Your task to perform on an android device: Search for a new bike on Walmart. Image 0: 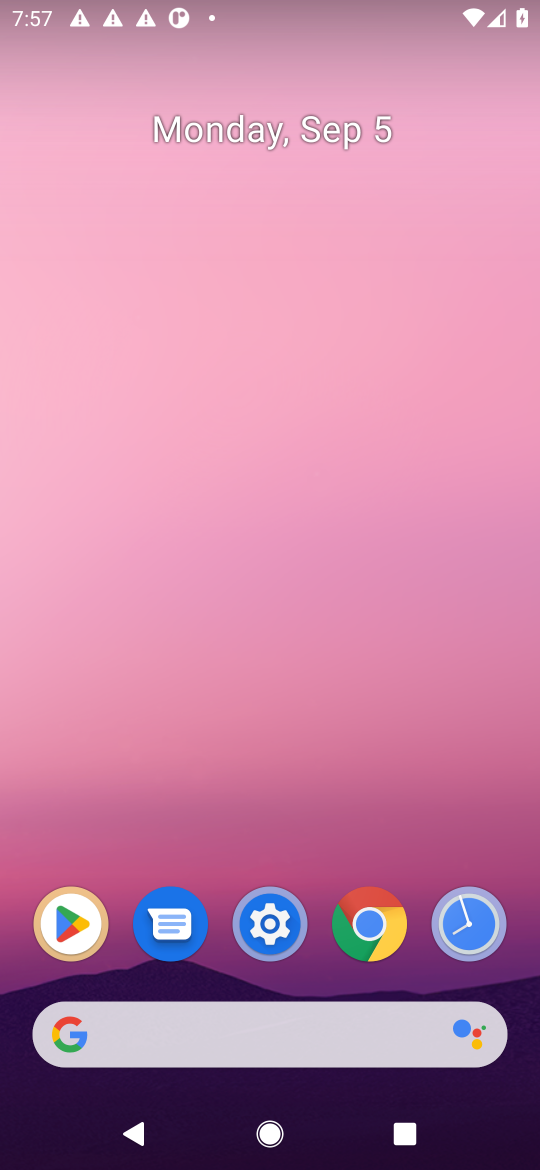
Step 0: click (360, 1021)
Your task to perform on an android device: Search for a new bike on Walmart. Image 1: 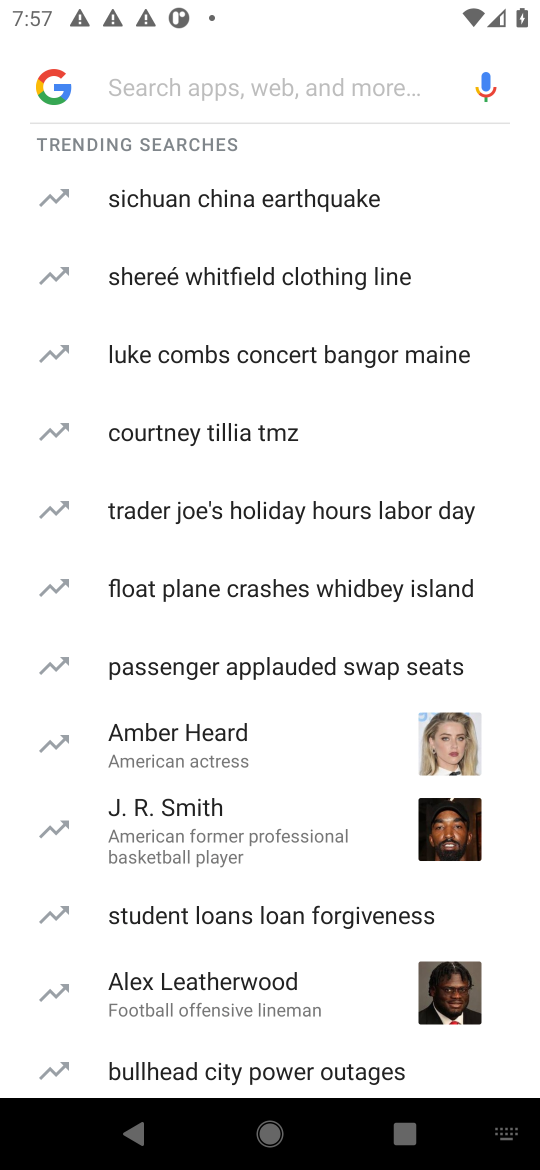
Step 1: type "walmart"
Your task to perform on an android device: Search for a new bike on Walmart. Image 2: 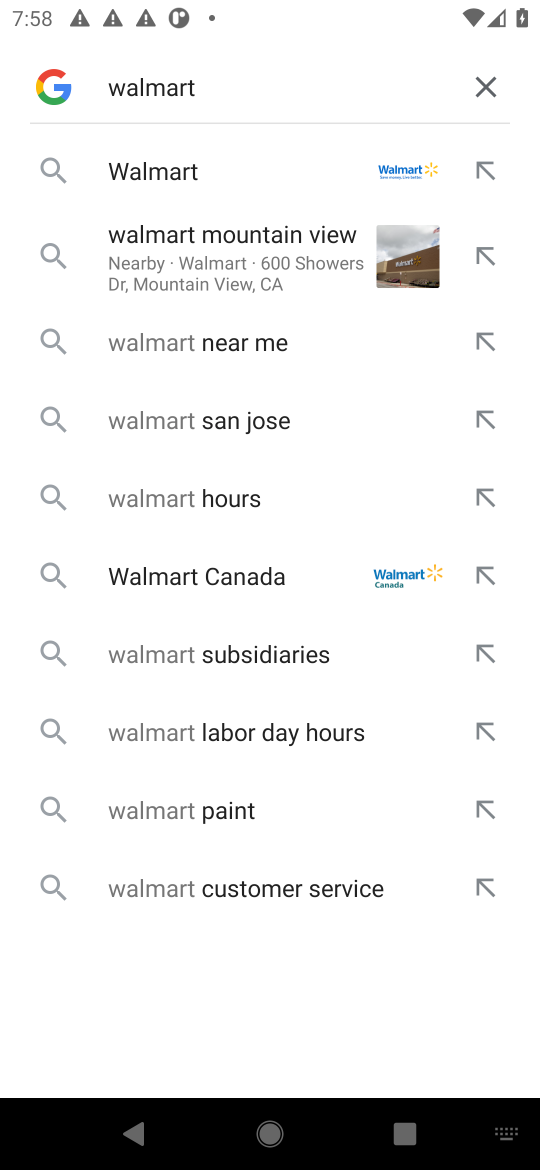
Step 2: press enter
Your task to perform on an android device: Search for a new bike on Walmart. Image 3: 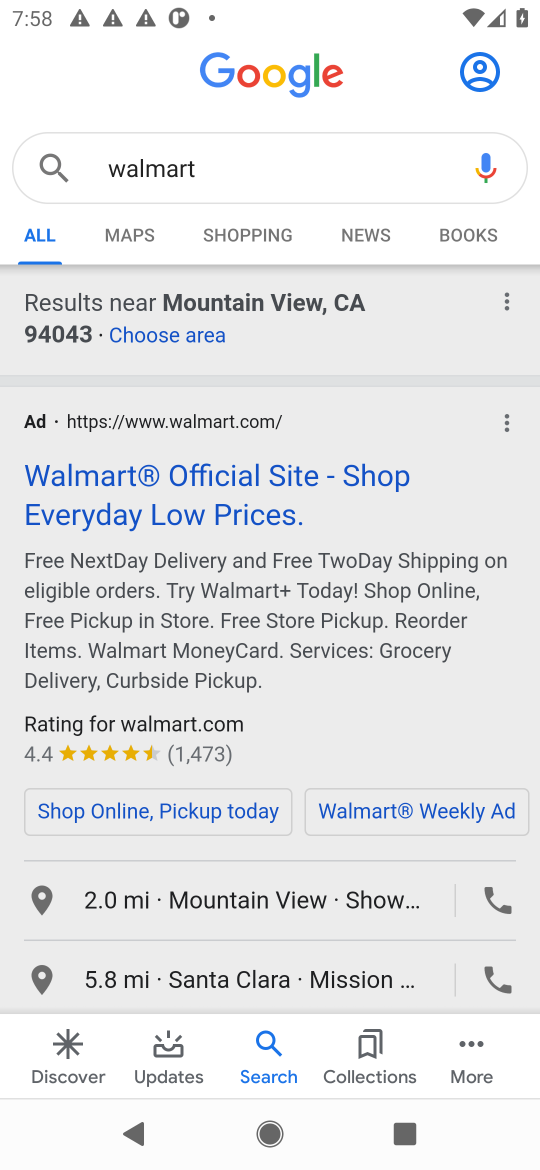
Step 3: click (191, 486)
Your task to perform on an android device: Search for a new bike on Walmart. Image 4: 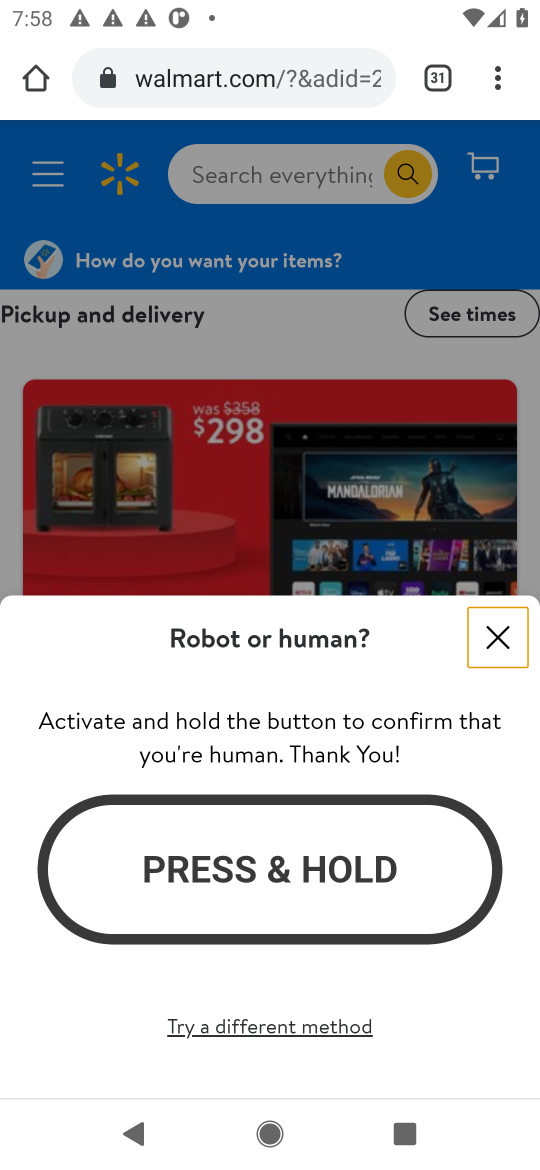
Step 4: click (496, 637)
Your task to perform on an android device: Search for a new bike on Walmart. Image 5: 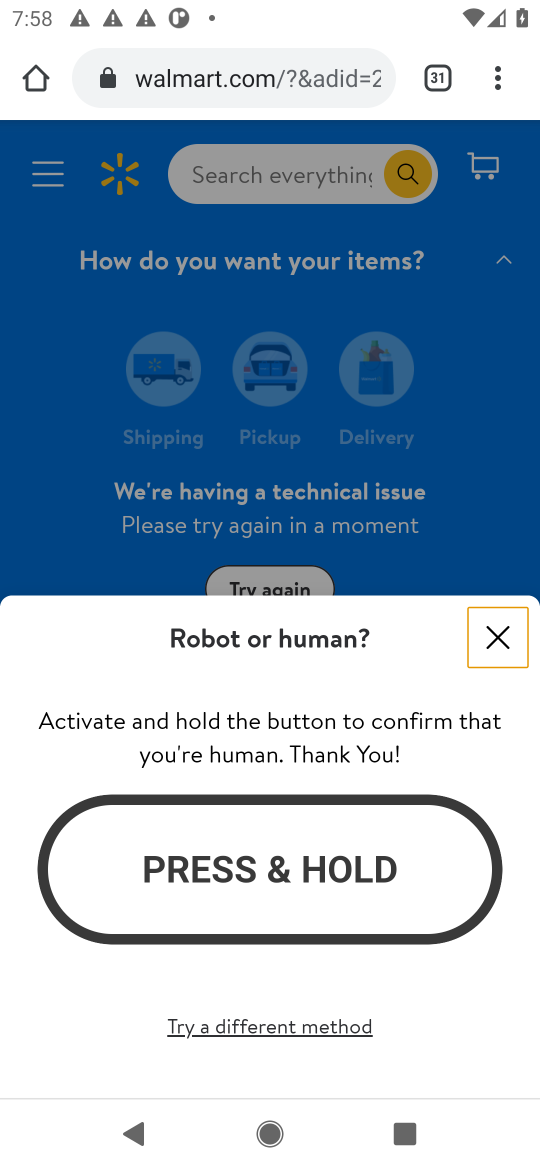
Step 5: click (501, 629)
Your task to perform on an android device: Search for a new bike on Walmart. Image 6: 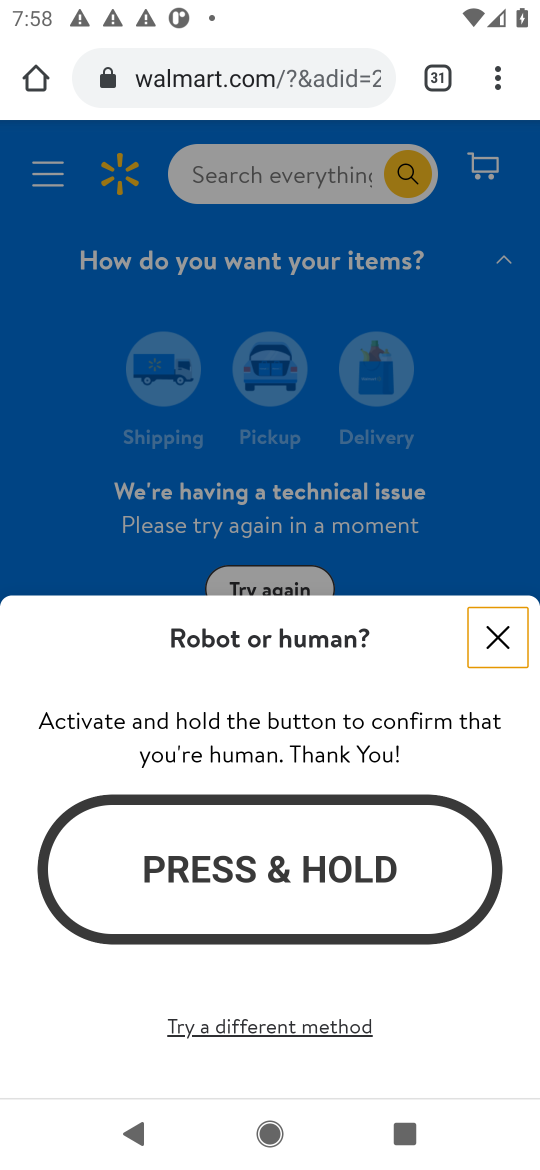
Step 6: click (504, 643)
Your task to perform on an android device: Search for a new bike on Walmart. Image 7: 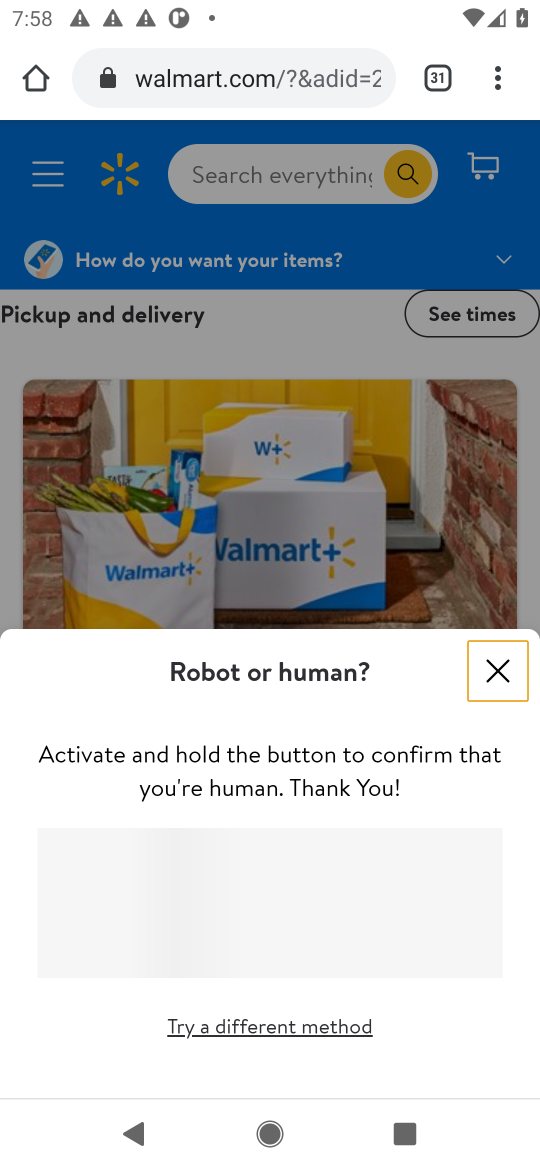
Step 7: click (248, 158)
Your task to perform on an android device: Search for a new bike on Walmart. Image 8: 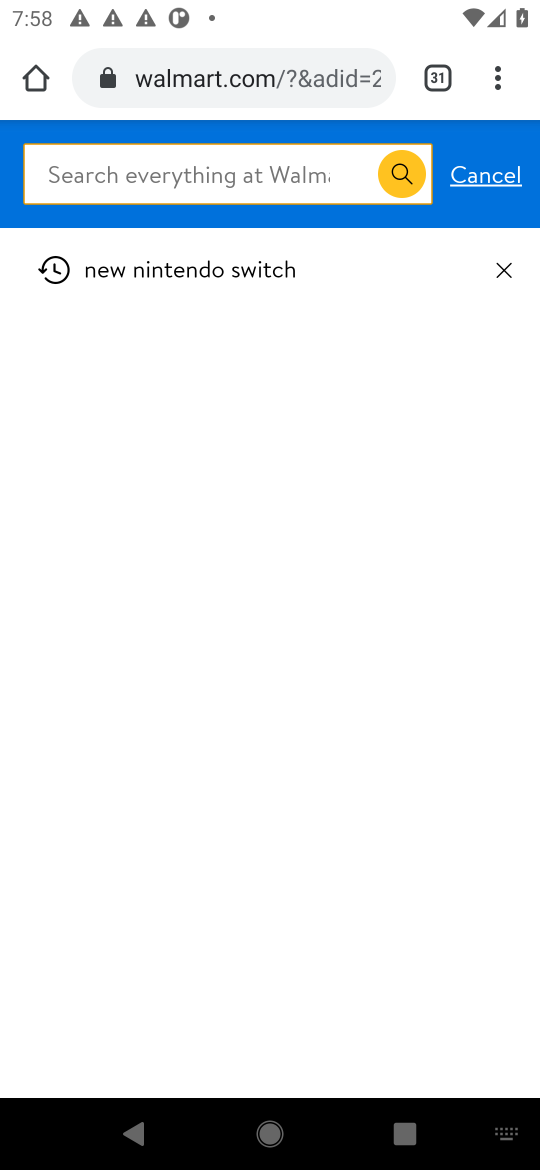
Step 8: click (187, 167)
Your task to perform on an android device: Search for a new bike on Walmart. Image 9: 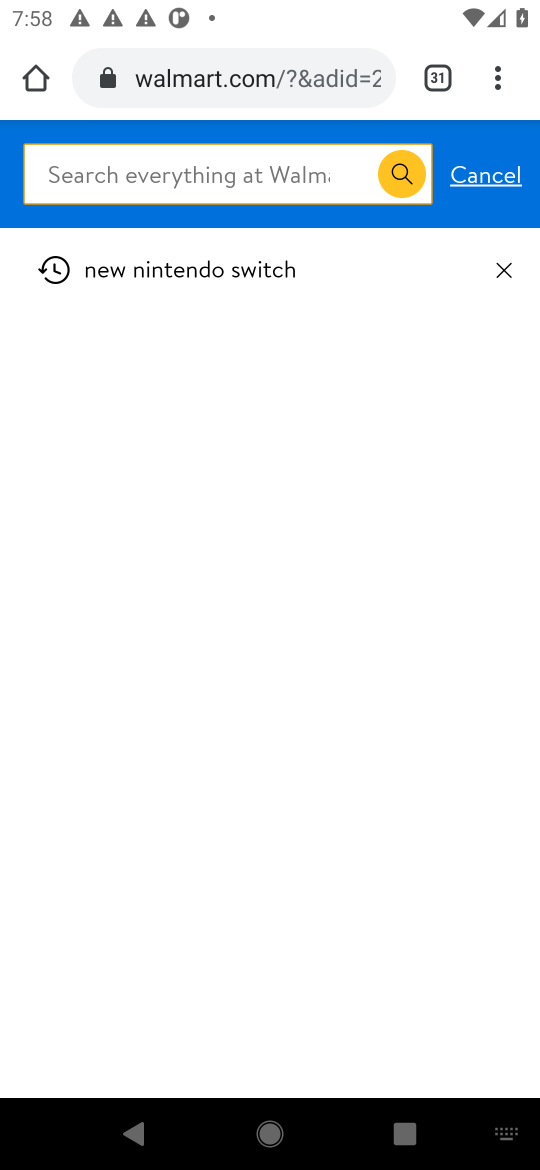
Step 9: type "walmart"
Your task to perform on an android device: Search for a new bike on Walmart. Image 10: 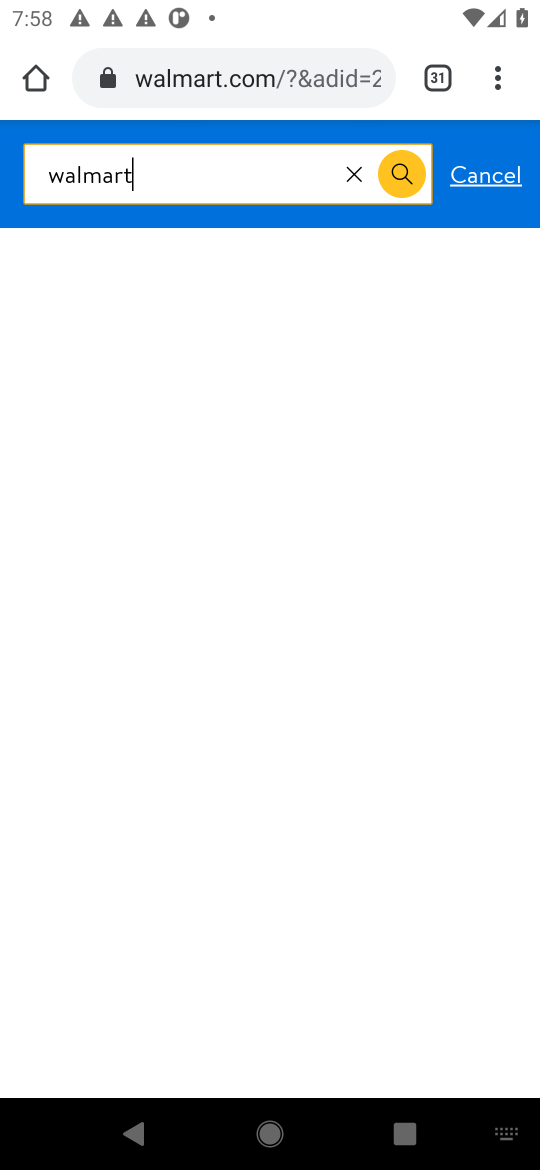
Step 10: press enter
Your task to perform on an android device: Search for a new bike on Walmart. Image 11: 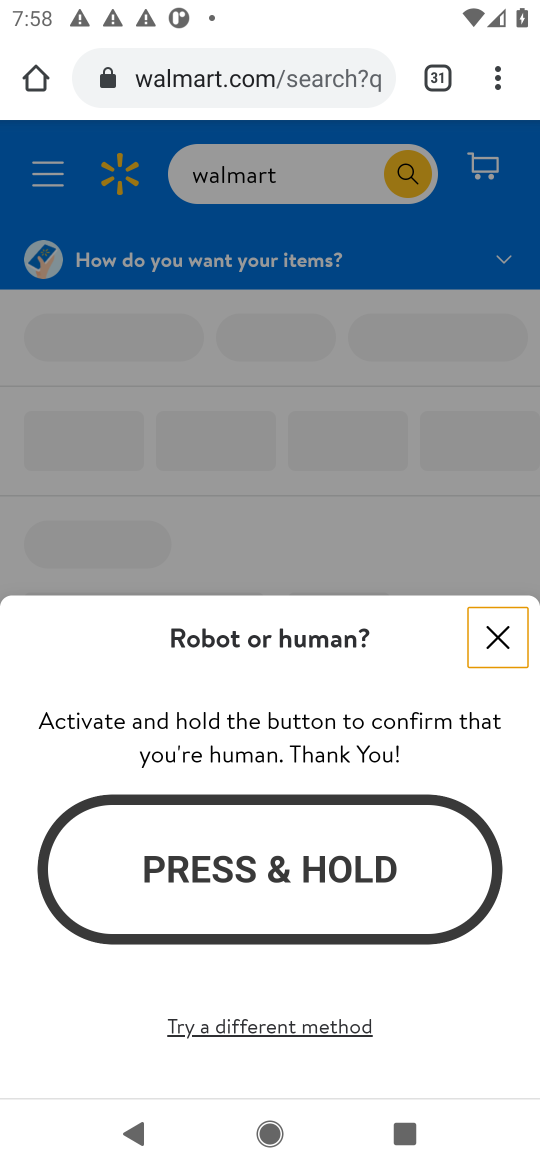
Step 11: click (495, 625)
Your task to perform on an android device: Search for a new bike on Walmart. Image 12: 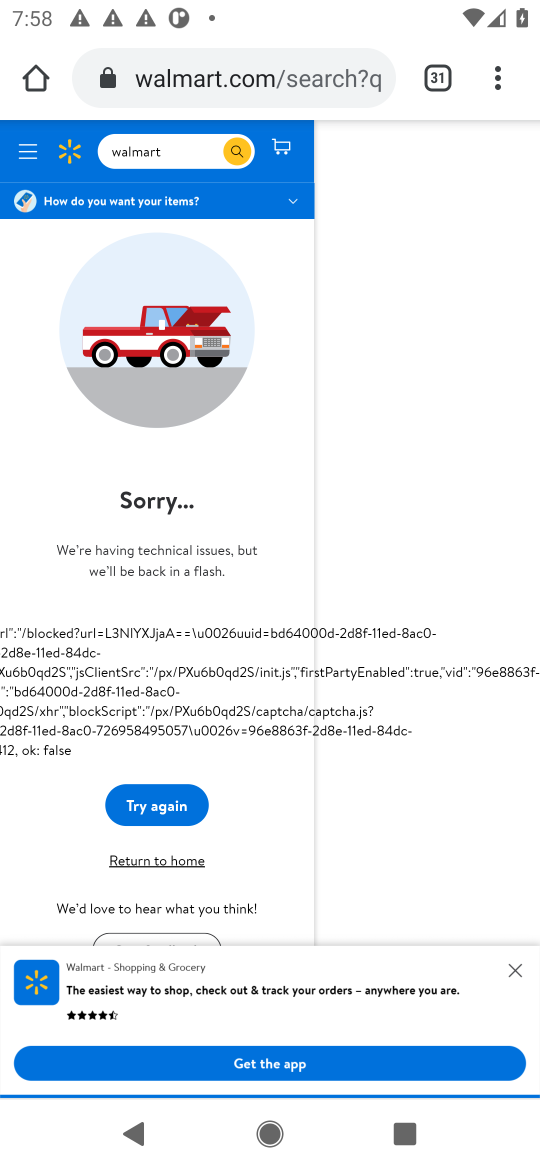
Step 12: task complete